Your task to perform on an android device: see sites visited before in the chrome app Image 0: 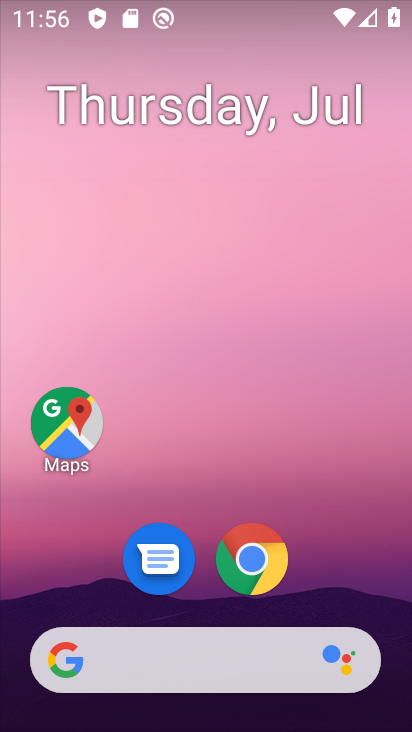
Step 0: drag from (352, 586) to (353, 120)
Your task to perform on an android device: see sites visited before in the chrome app Image 1: 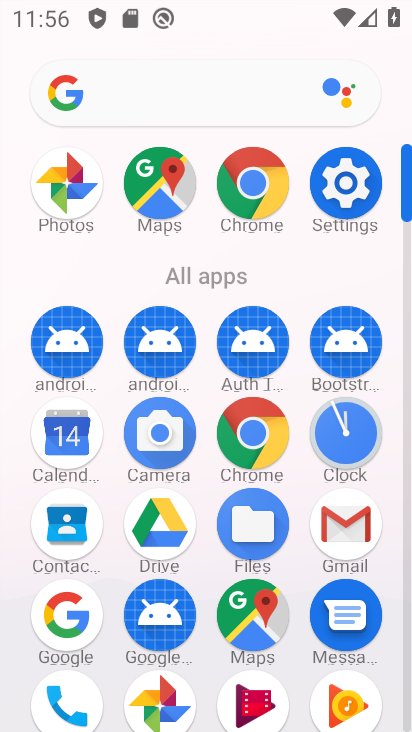
Step 1: click (260, 194)
Your task to perform on an android device: see sites visited before in the chrome app Image 2: 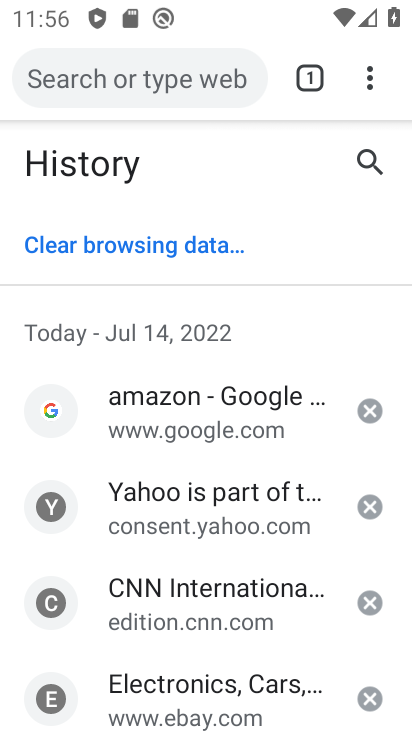
Step 2: task complete